Your task to perform on an android device: toggle data saver in the chrome app Image 0: 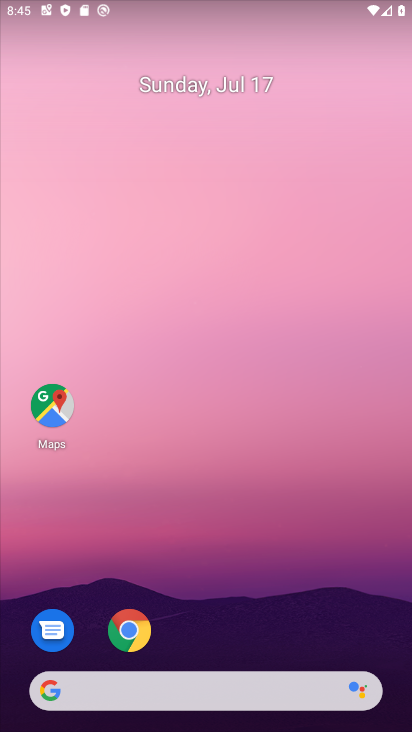
Step 0: click (125, 635)
Your task to perform on an android device: toggle data saver in the chrome app Image 1: 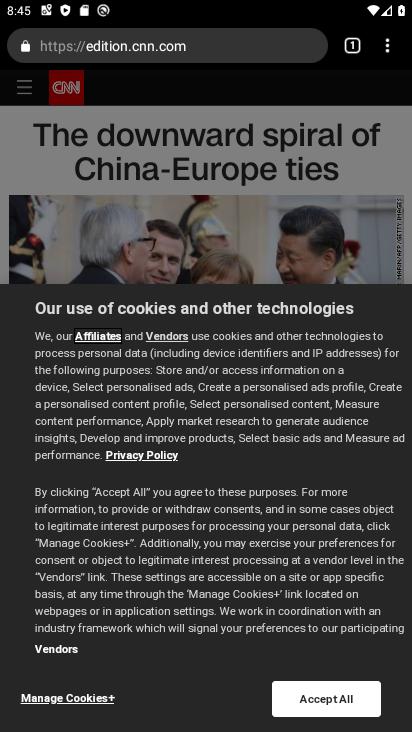
Step 1: click (388, 40)
Your task to perform on an android device: toggle data saver in the chrome app Image 2: 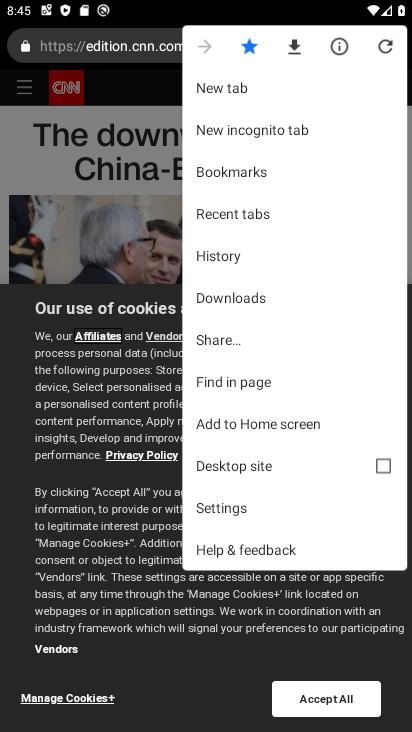
Step 2: click (224, 506)
Your task to perform on an android device: toggle data saver in the chrome app Image 3: 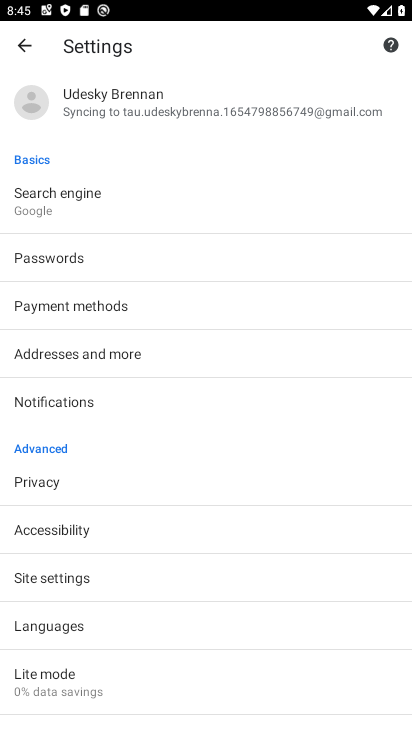
Step 3: click (91, 691)
Your task to perform on an android device: toggle data saver in the chrome app Image 4: 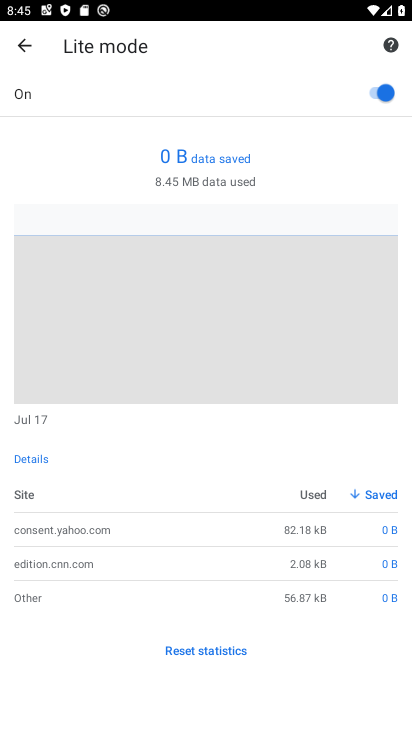
Step 4: click (381, 89)
Your task to perform on an android device: toggle data saver in the chrome app Image 5: 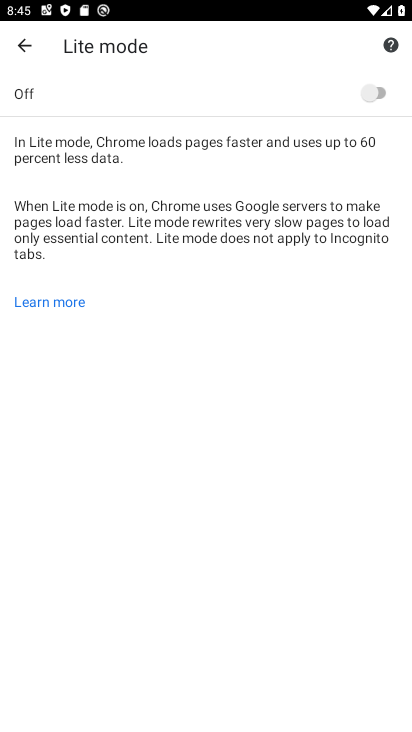
Step 5: task complete